Your task to perform on an android device: Go to CNN.com Image 0: 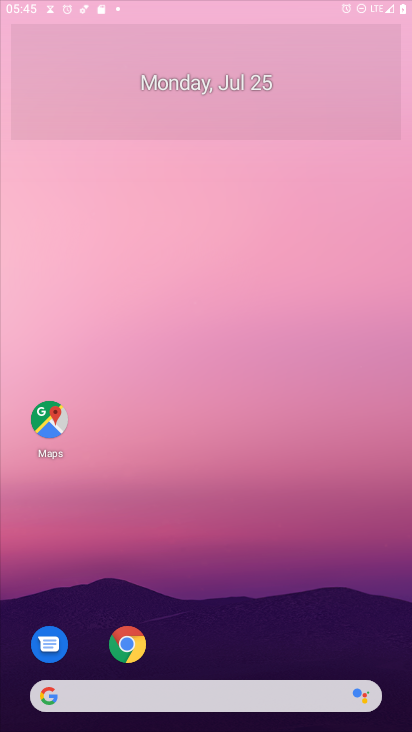
Step 0: press home button
Your task to perform on an android device: Go to CNN.com Image 1: 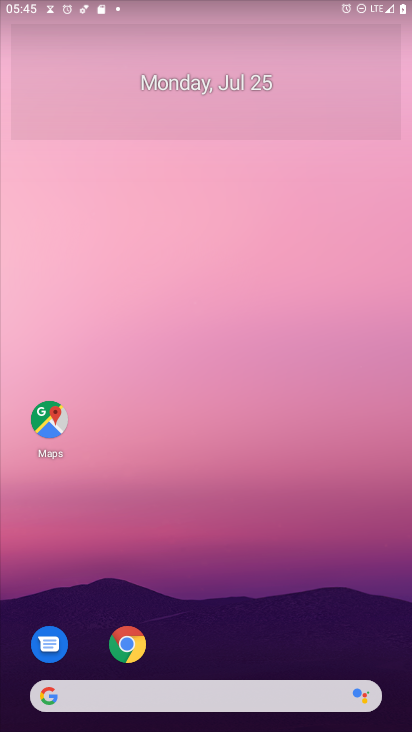
Step 1: click (60, 688)
Your task to perform on an android device: Go to CNN.com Image 2: 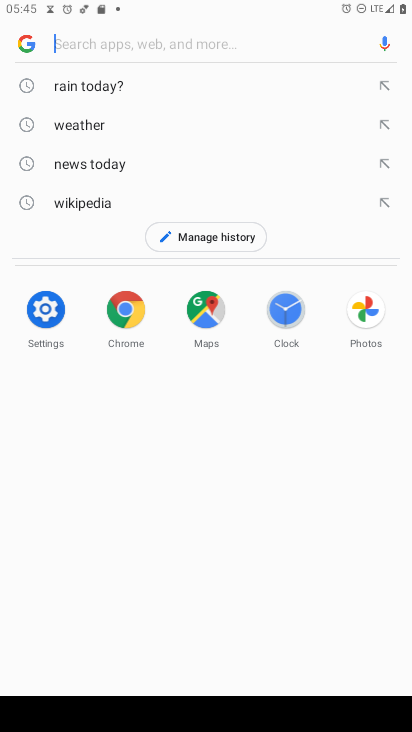
Step 2: type "CNN.com"
Your task to perform on an android device: Go to CNN.com Image 3: 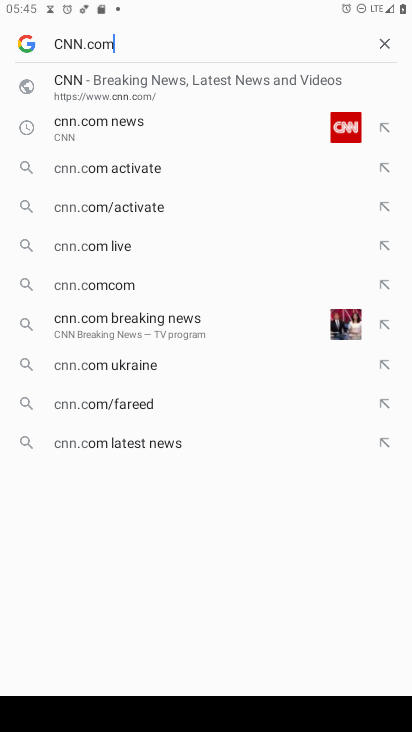
Step 3: press enter
Your task to perform on an android device: Go to CNN.com Image 4: 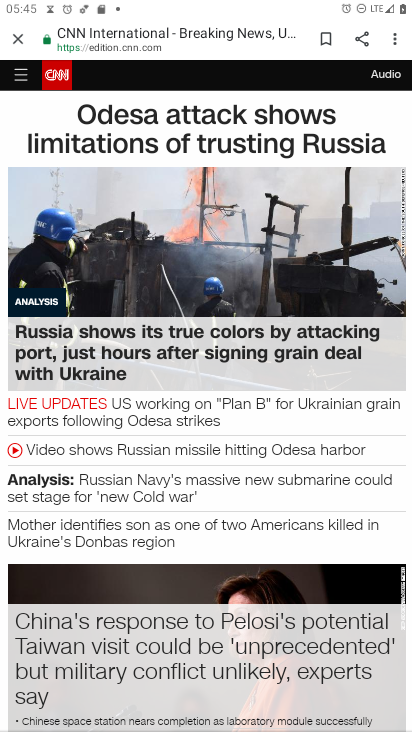
Step 4: task complete